Your task to perform on an android device: Search for sushi restaurants on Maps Image 0: 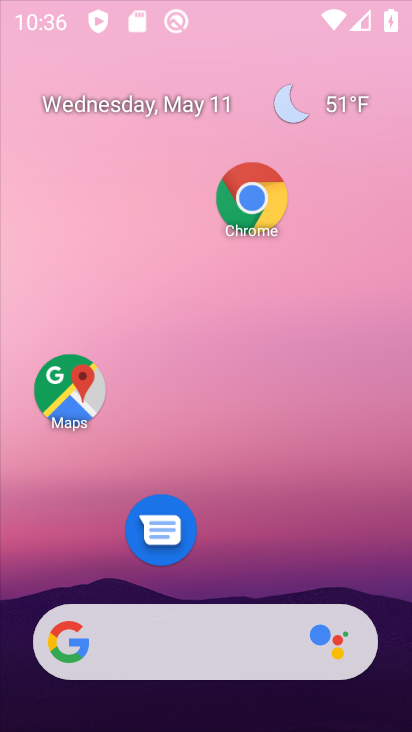
Step 0: click (260, 127)
Your task to perform on an android device: Search for sushi restaurants on Maps Image 1: 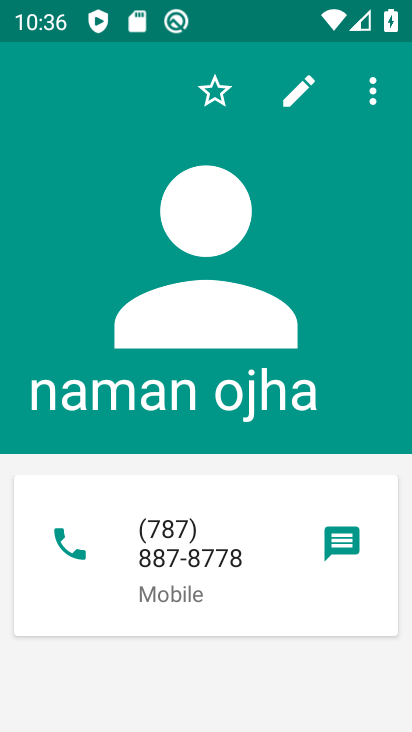
Step 1: press home button
Your task to perform on an android device: Search for sushi restaurants on Maps Image 2: 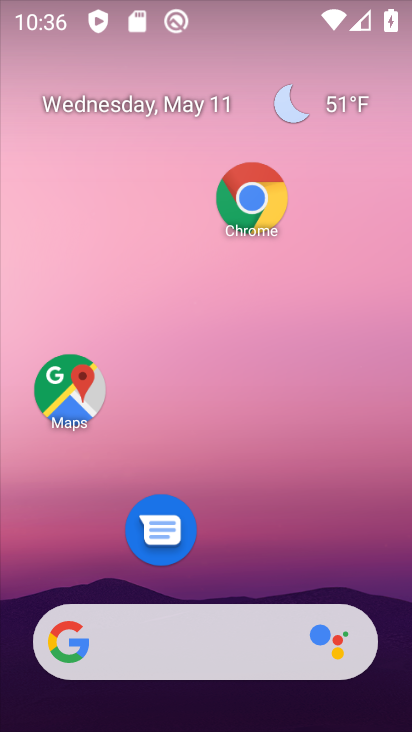
Step 2: click (67, 380)
Your task to perform on an android device: Search for sushi restaurants on Maps Image 3: 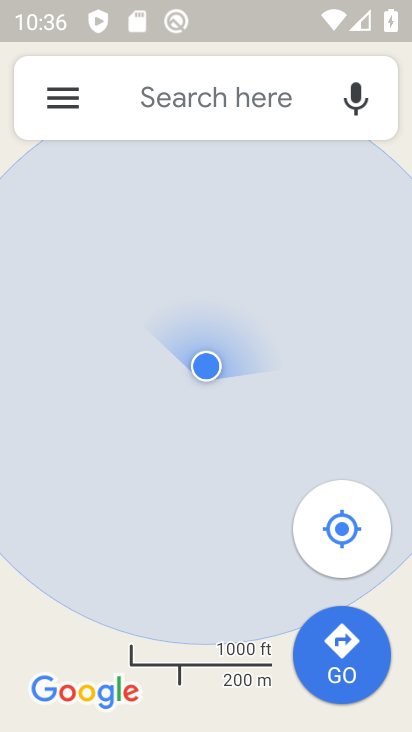
Step 3: click (173, 113)
Your task to perform on an android device: Search for sushi restaurants on Maps Image 4: 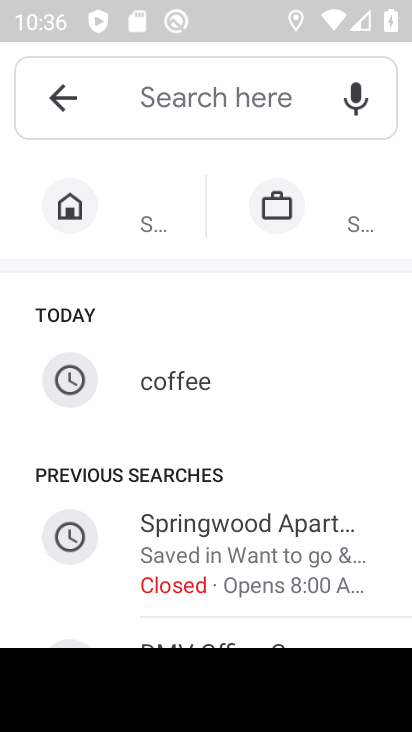
Step 4: type "sushi restaurants"
Your task to perform on an android device: Search for sushi restaurants on Maps Image 5: 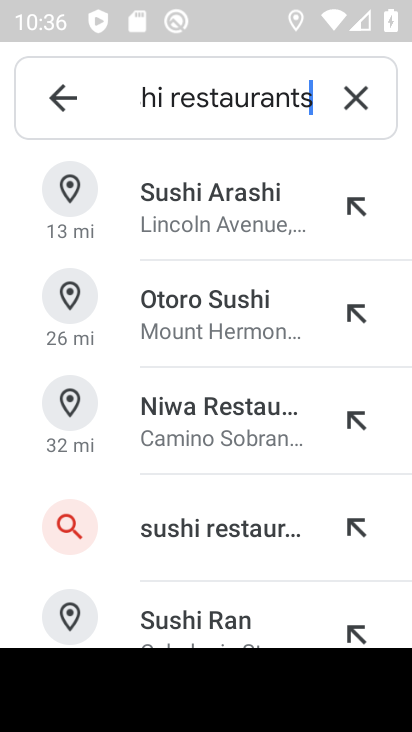
Step 5: click (247, 545)
Your task to perform on an android device: Search for sushi restaurants on Maps Image 6: 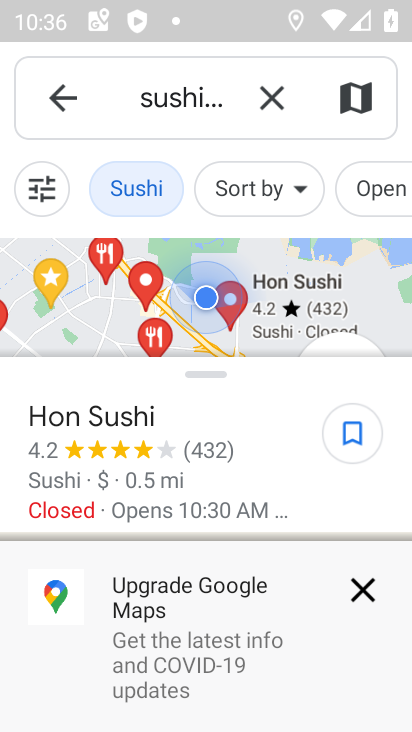
Step 6: task complete